Your task to perform on an android device: Go to ESPN.com Image 0: 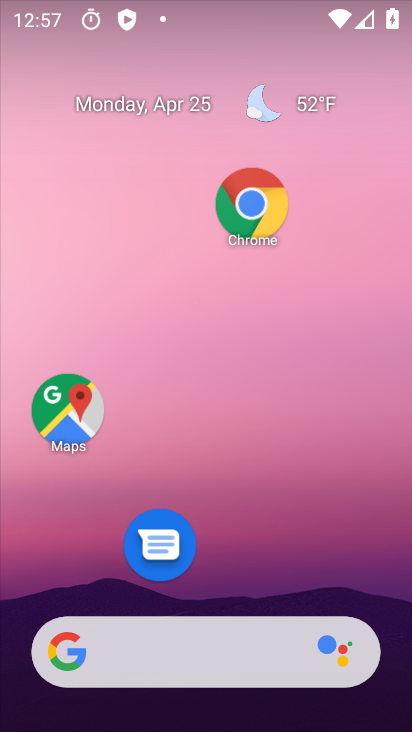
Step 0: drag from (323, 687) to (303, 173)
Your task to perform on an android device: Go to ESPN.com Image 1: 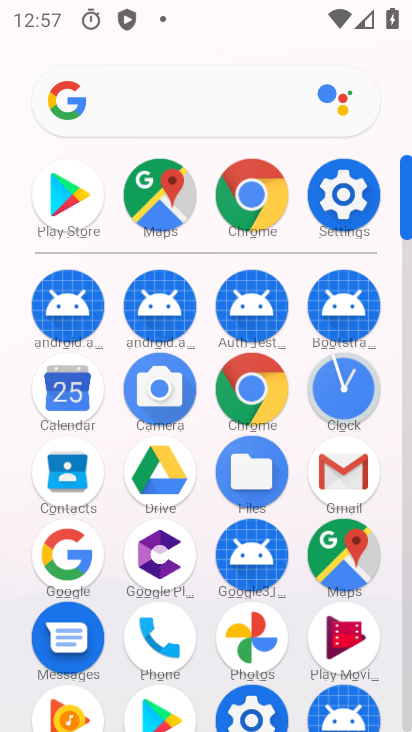
Step 1: click (236, 187)
Your task to perform on an android device: Go to ESPN.com Image 2: 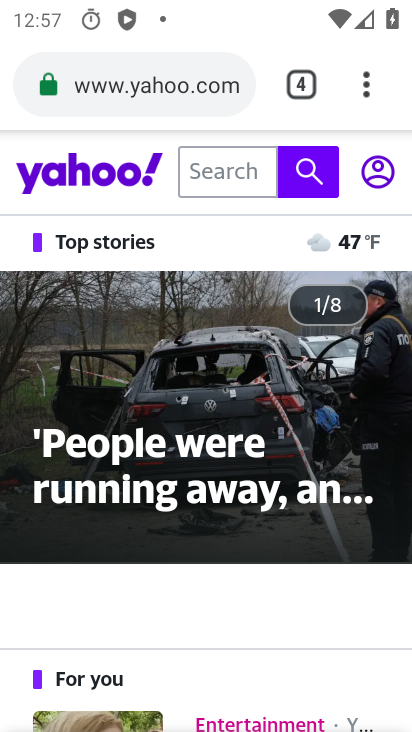
Step 2: click (136, 91)
Your task to perform on an android device: Go to ESPN.com Image 3: 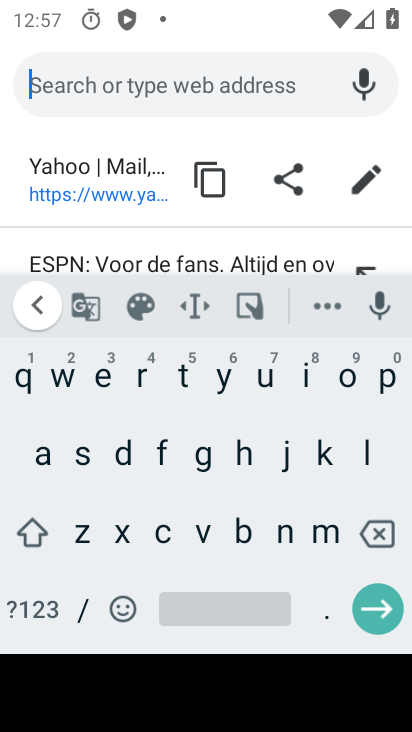
Step 3: click (69, 260)
Your task to perform on an android device: Go to ESPN.com Image 4: 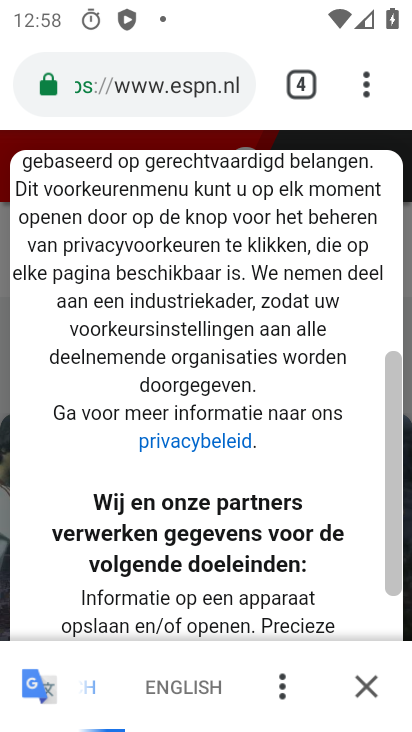
Step 4: task complete